Your task to perform on an android device: see sites visited before in the chrome app Image 0: 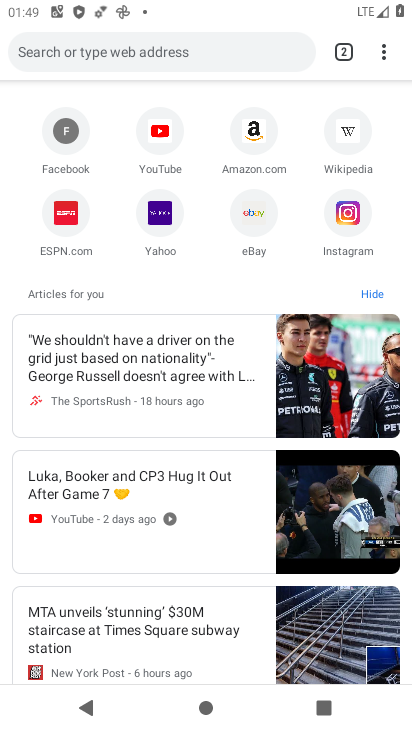
Step 0: click (382, 52)
Your task to perform on an android device: see sites visited before in the chrome app Image 1: 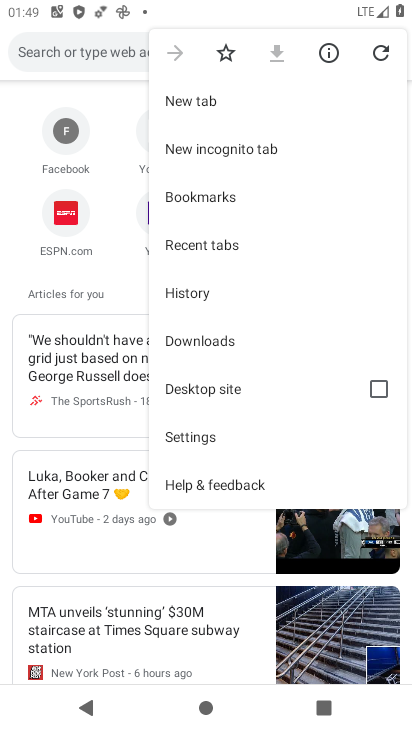
Step 1: click (191, 293)
Your task to perform on an android device: see sites visited before in the chrome app Image 2: 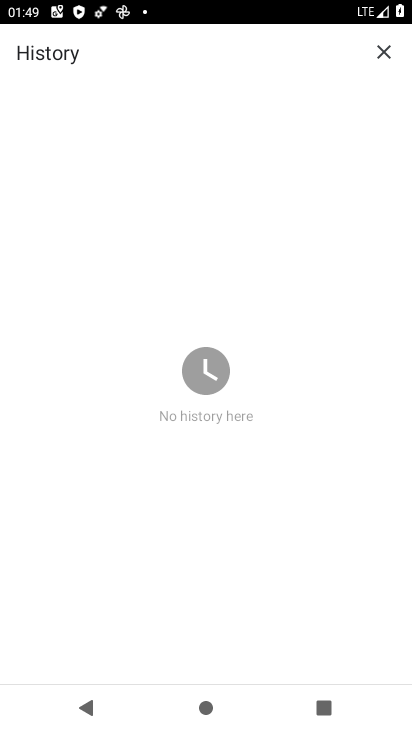
Step 2: task complete